Your task to perform on an android device: turn on sleep mode Image 0: 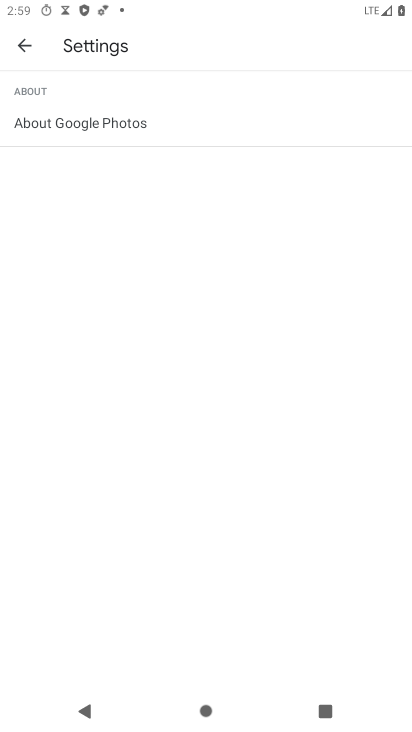
Step 0: press home button
Your task to perform on an android device: turn on sleep mode Image 1: 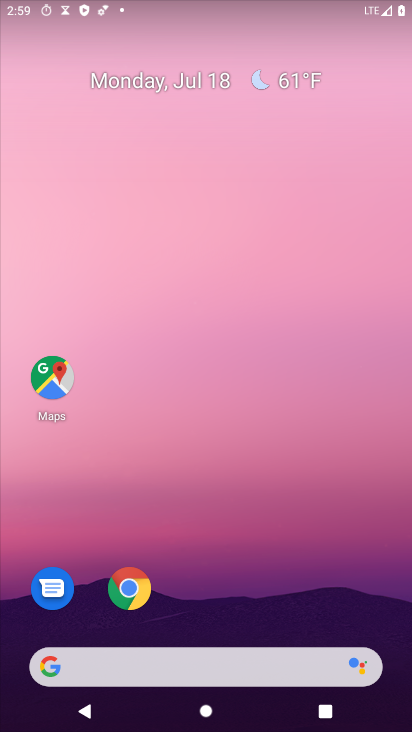
Step 1: drag from (224, 559) to (135, 11)
Your task to perform on an android device: turn on sleep mode Image 2: 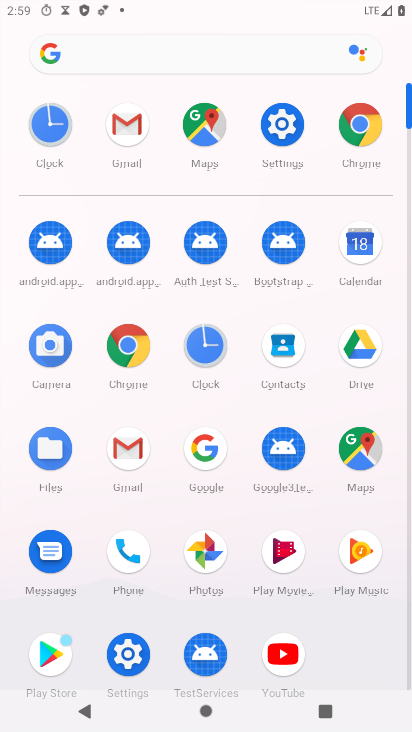
Step 2: click (273, 128)
Your task to perform on an android device: turn on sleep mode Image 3: 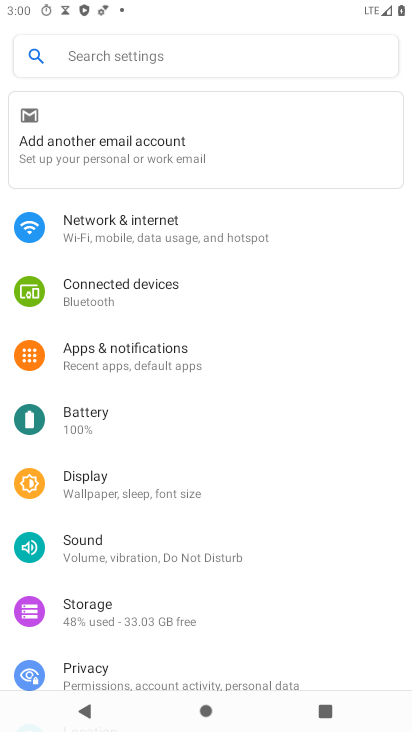
Step 3: click (106, 513)
Your task to perform on an android device: turn on sleep mode Image 4: 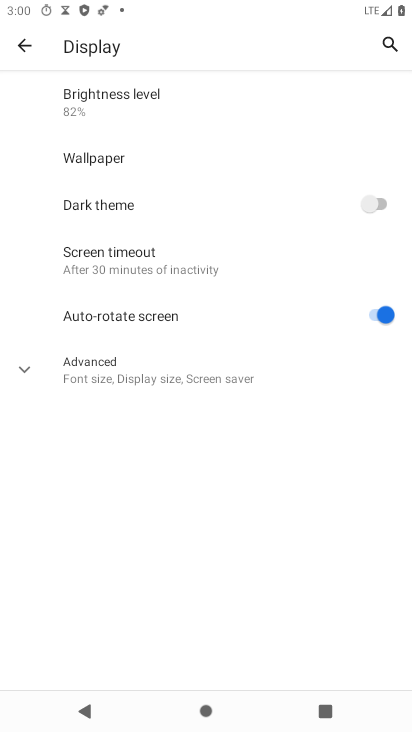
Step 4: click (123, 261)
Your task to perform on an android device: turn on sleep mode Image 5: 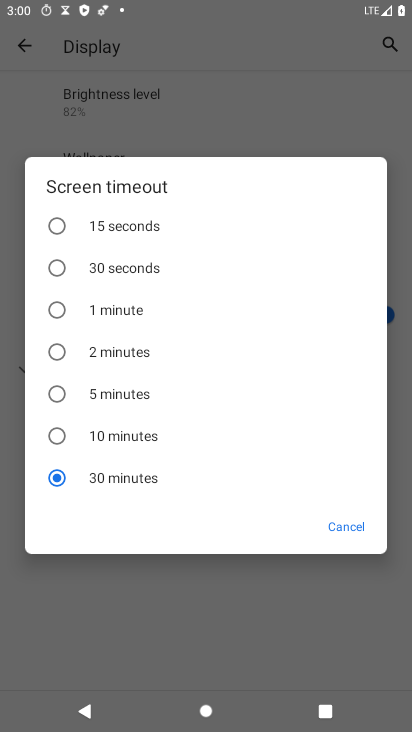
Step 5: task complete